Your task to perform on an android device: Go to Reddit.com Image 0: 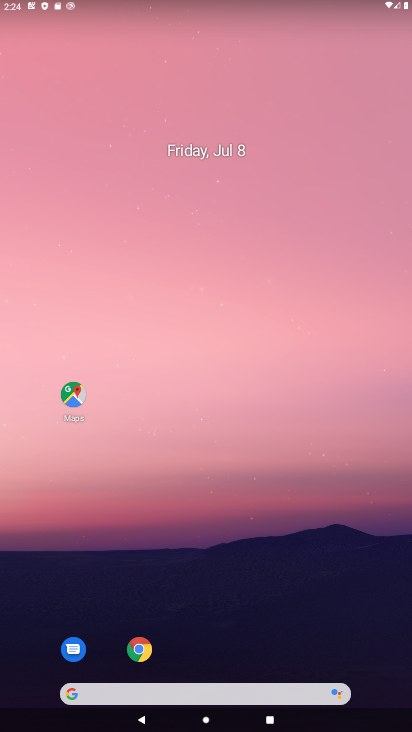
Step 0: click (139, 647)
Your task to perform on an android device: Go to Reddit.com Image 1: 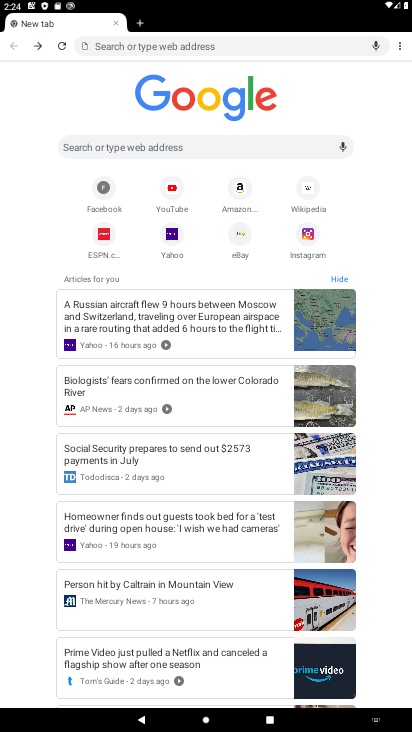
Step 1: click (121, 147)
Your task to perform on an android device: Go to Reddit.com Image 2: 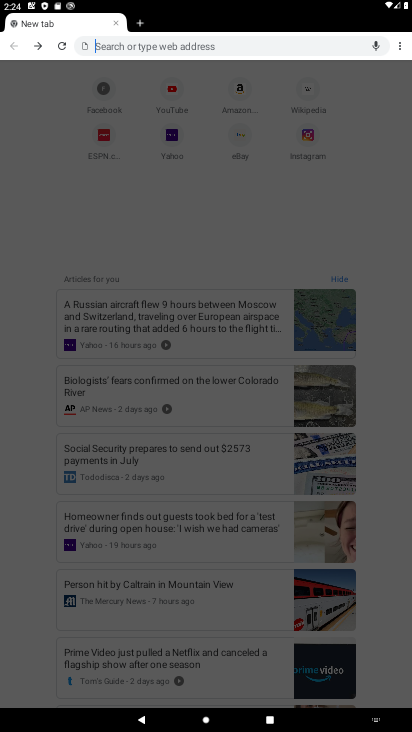
Step 2: type "Reddit.com"
Your task to perform on an android device: Go to Reddit.com Image 3: 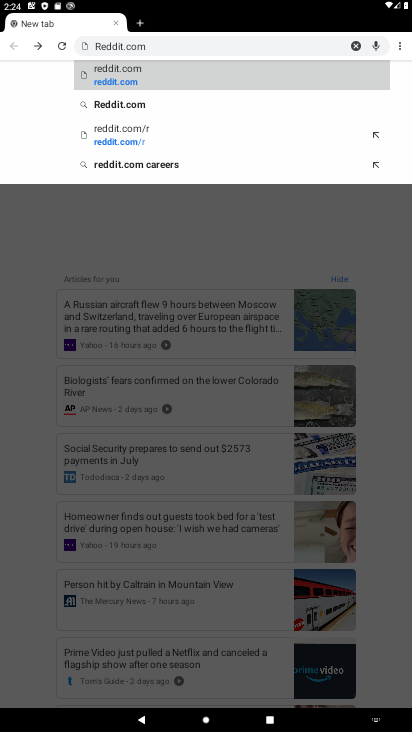
Step 3: click (115, 70)
Your task to perform on an android device: Go to Reddit.com Image 4: 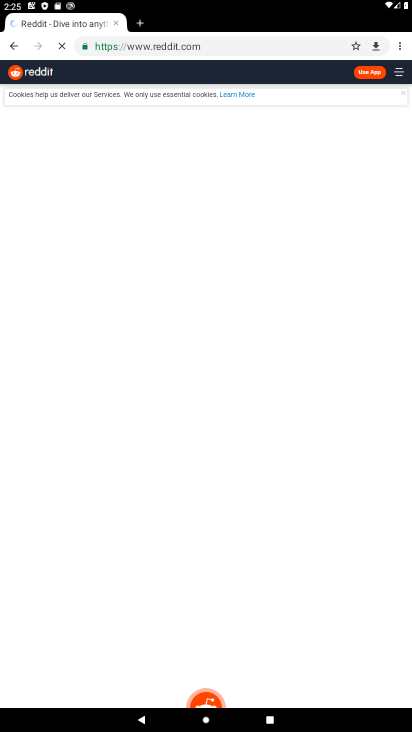
Step 4: task complete